Your task to perform on an android device: open app "Facebook Lite" Image 0: 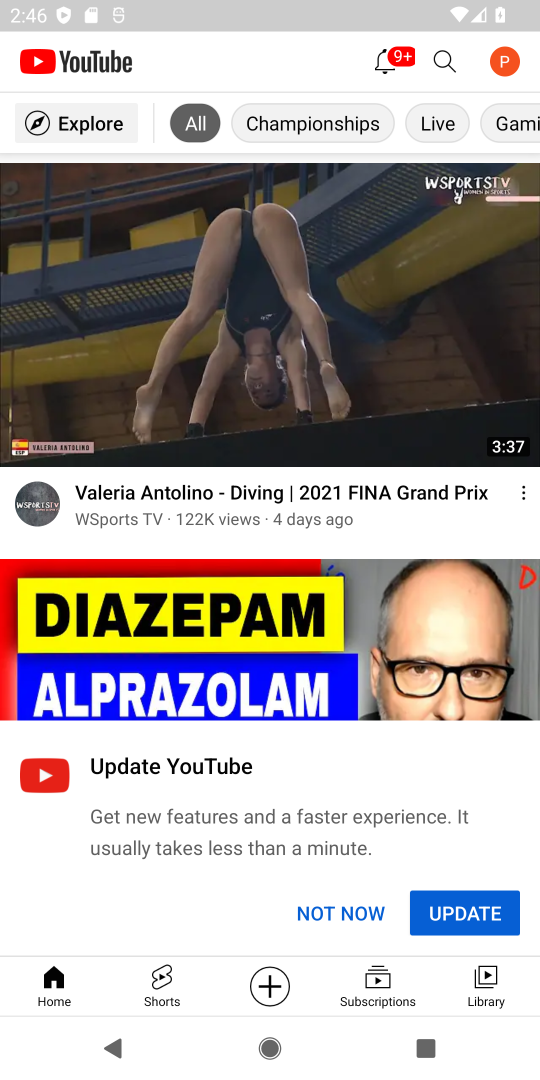
Step 0: press home button
Your task to perform on an android device: open app "Facebook Lite" Image 1: 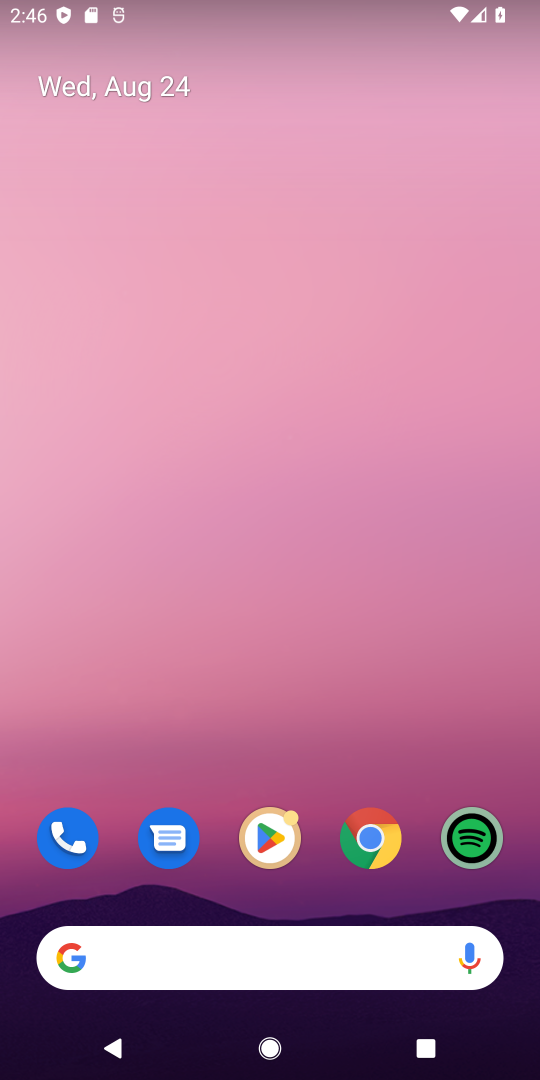
Step 1: drag from (428, 753) to (461, 133)
Your task to perform on an android device: open app "Facebook Lite" Image 2: 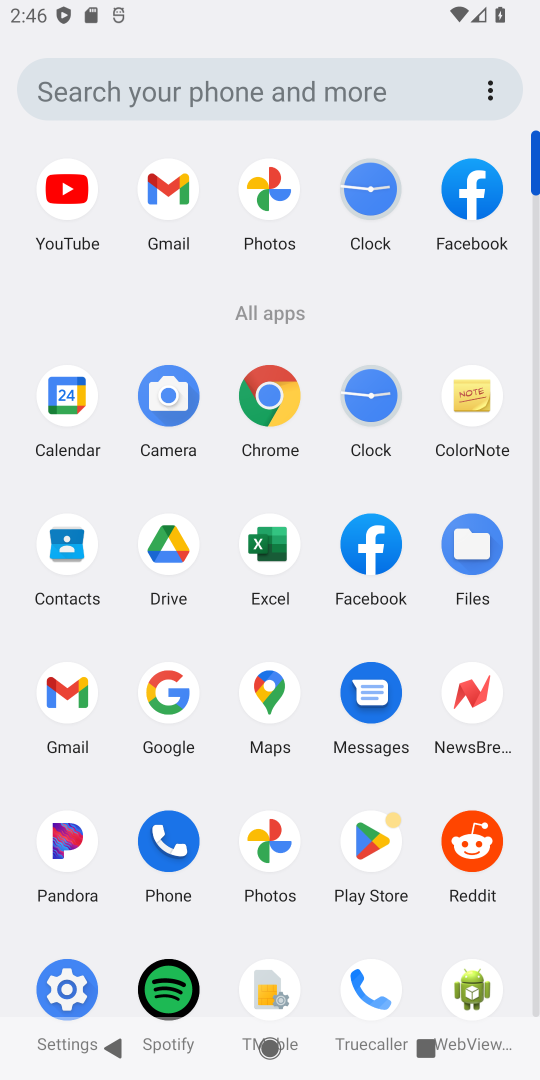
Step 2: click (372, 840)
Your task to perform on an android device: open app "Facebook Lite" Image 3: 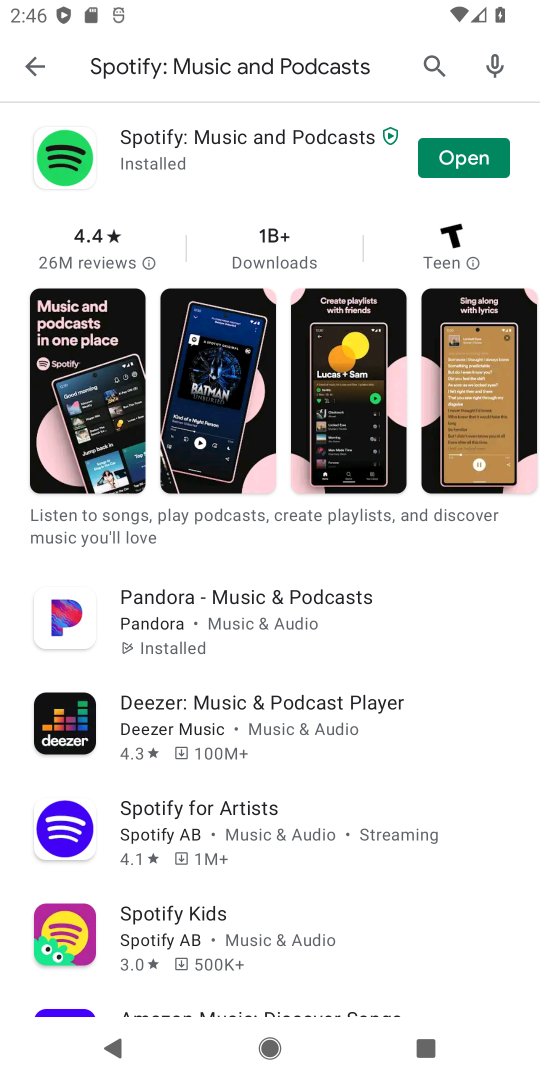
Step 3: press back button
Your task to perform on an android device: open app "Facebook Lite" Image 4: 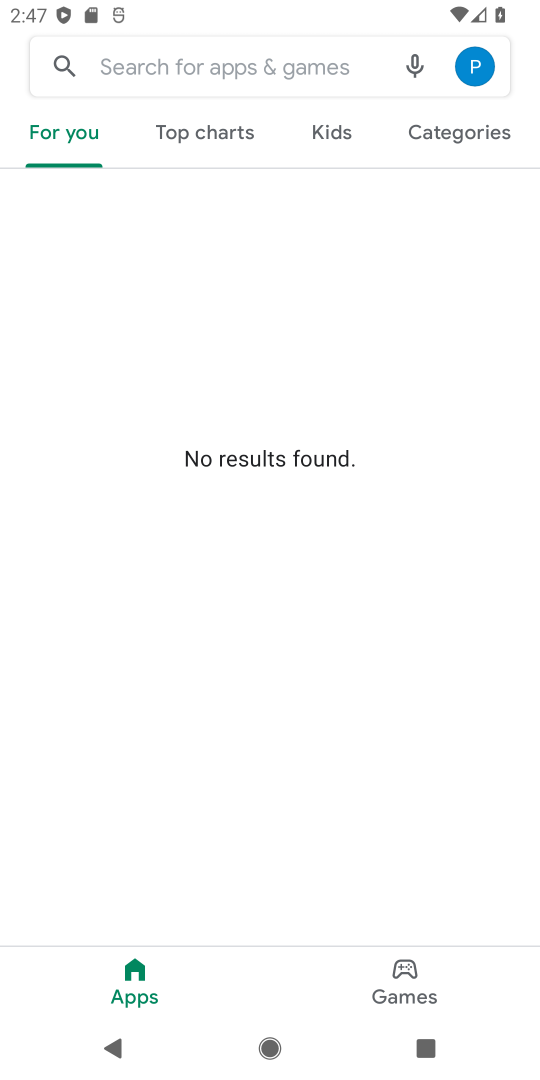
Step 4: click (297, 67)
Your task to perform on an android device: open app "Facebook Lite" Image 5: 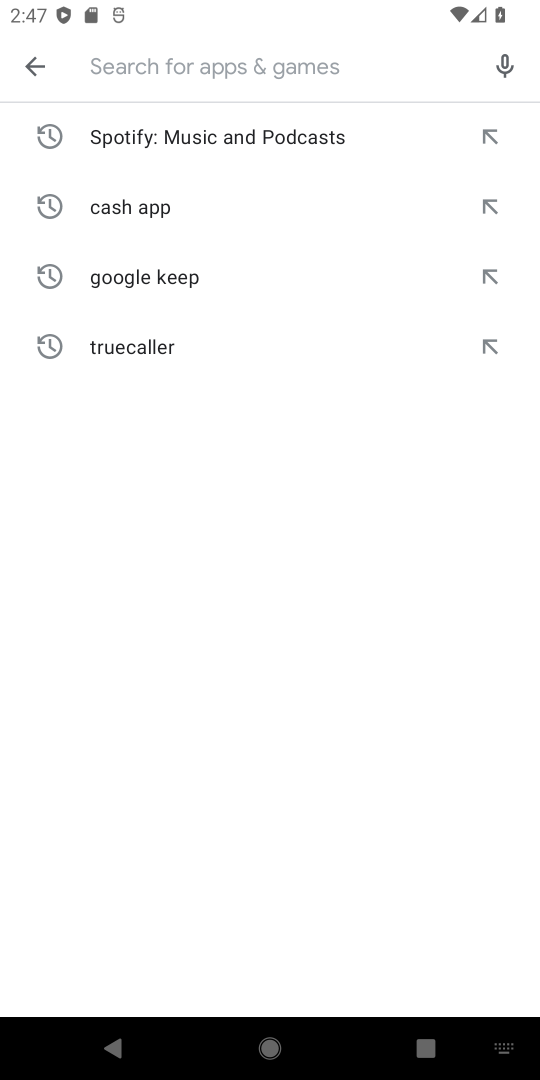
Step 5: press enter
Your task to perform on an android device: open app "Facebook Lite" Image 6: 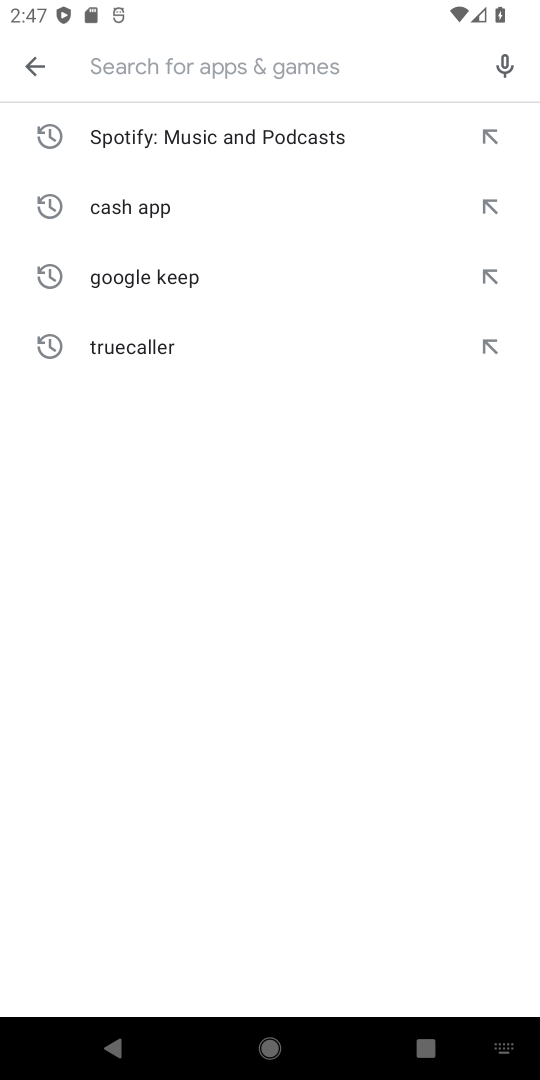
Step 6: type "facebook lite"
Your task to perform on an android device: open app "Facebook Lite" Image 7: 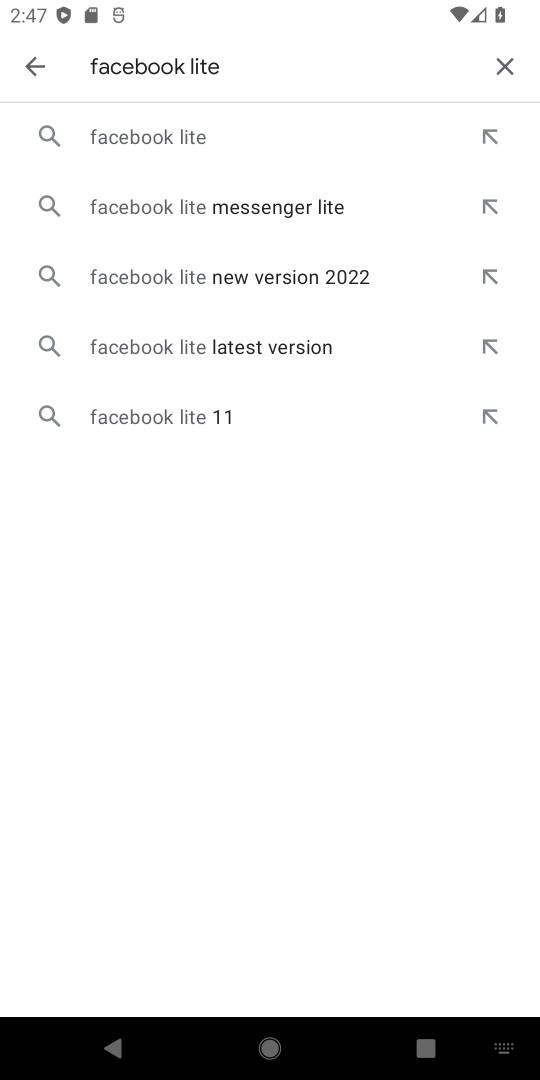
Step 7: click (239, 145)
Your task to perform on an android device: open app "Facebook Lite" Image 8: 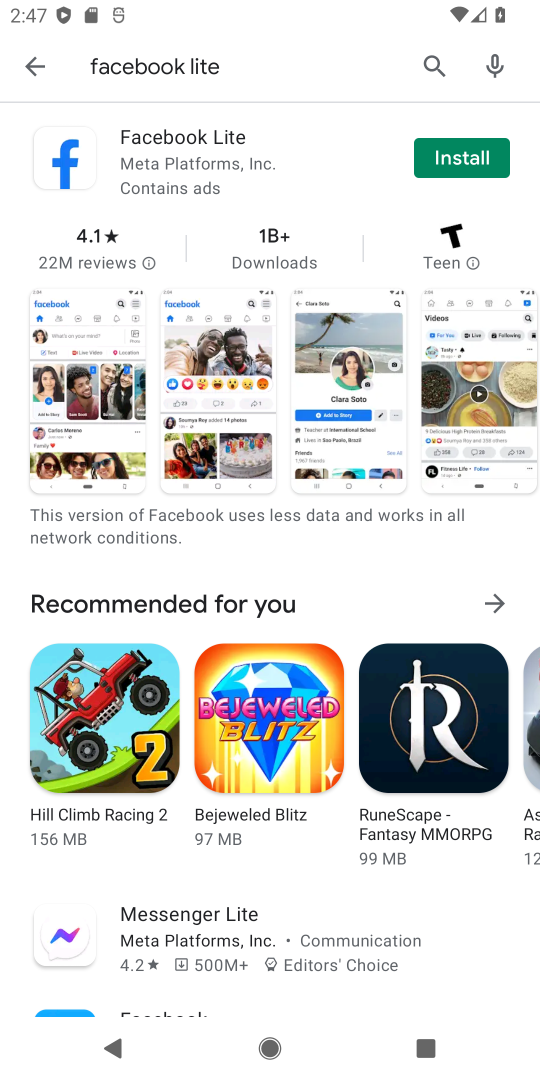
Step 8: task complete